Your task to perform on an android device: Open eBay Image 0: 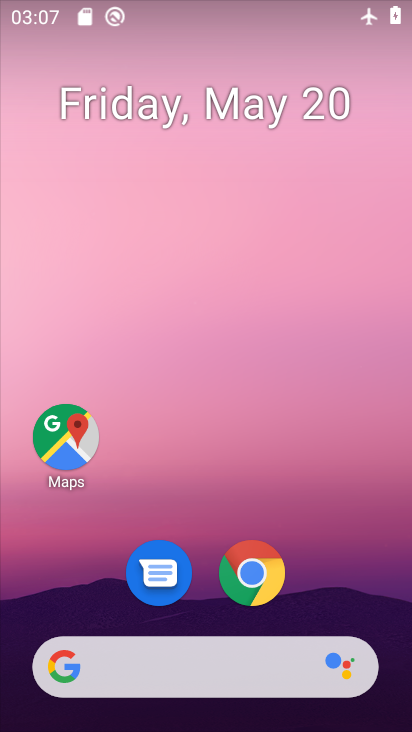
Step 0: click (239, 583)
Your task to perform on an android device: Open eBay Image 1: 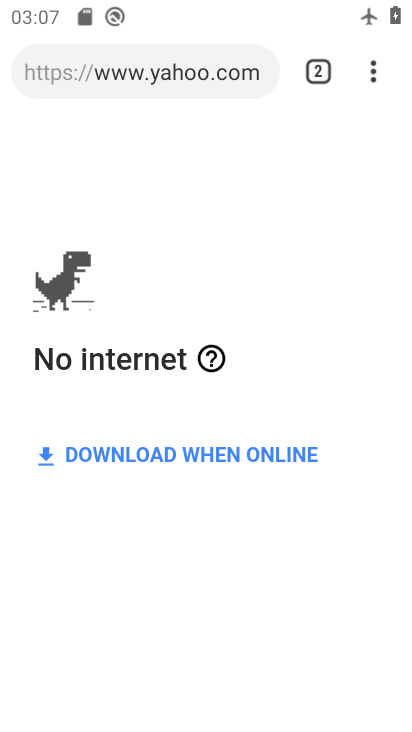
Step 1: click (313, 59)
Your task to perform on an android device: Open eBay Image 2: 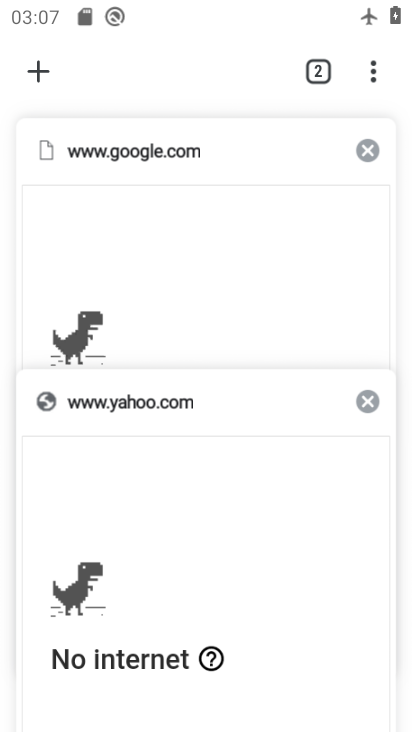
Step 2: click (45, 77)
Your task to perform on an android device: Open eBay Image 3: 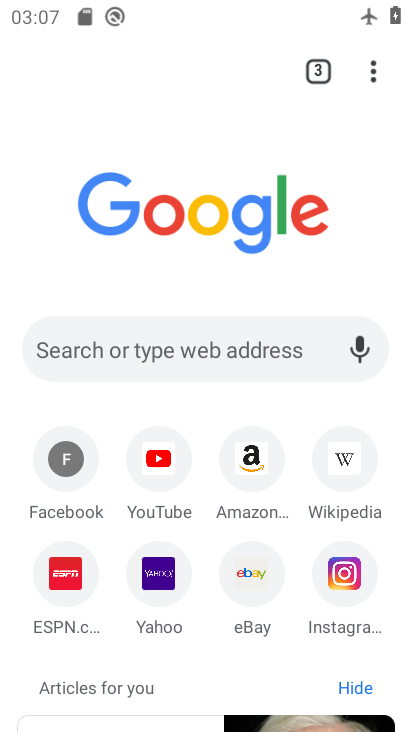
Step 3: click (170, 345)
Your task to perform on an android device: Open eBay Image 4: 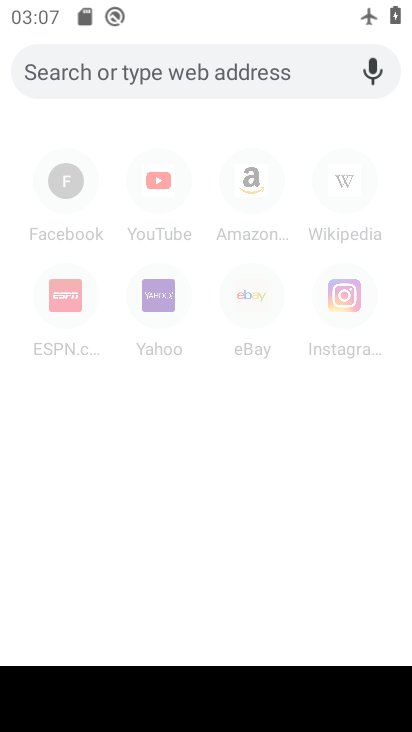
Step 4: type "eBay"
Your task to perform on an android device: Open eBay Image 5: 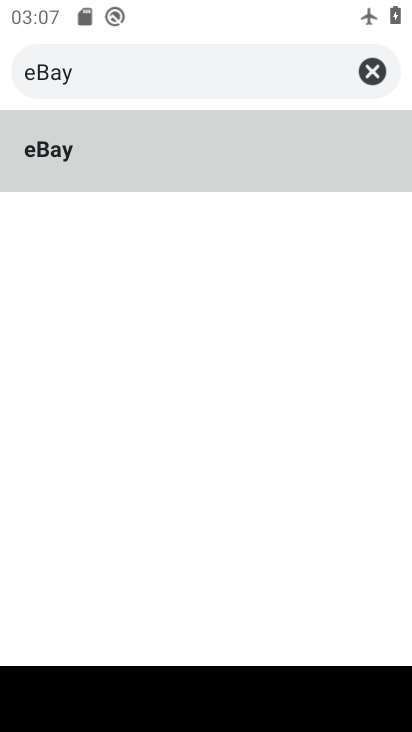
Step 5: click (145, 131)
Your task to perform on an android device: Open eBay Image 6: 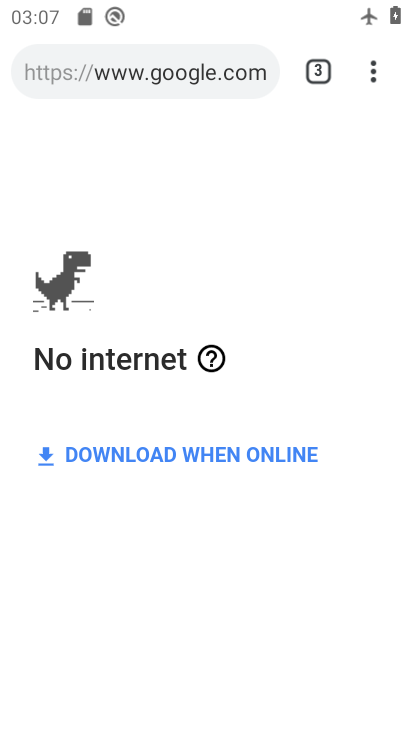
Step 6: task complete